Your task to perform on an android device: What's the weather? Image 0: 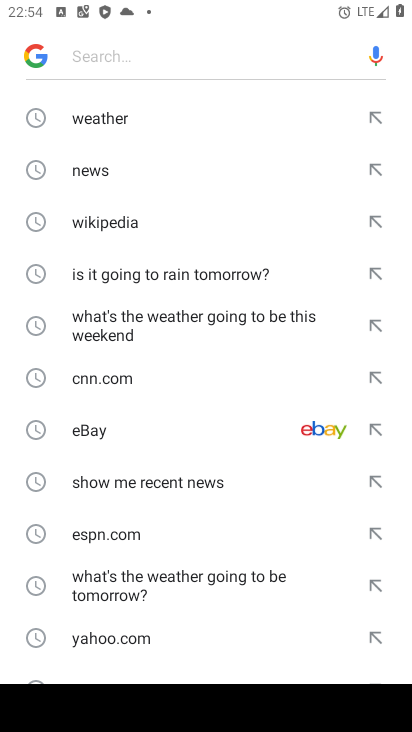
Step 0: drag from (373, 653) to (296, 729)
Your task to perform on an android device: What's the weather? Image 1: 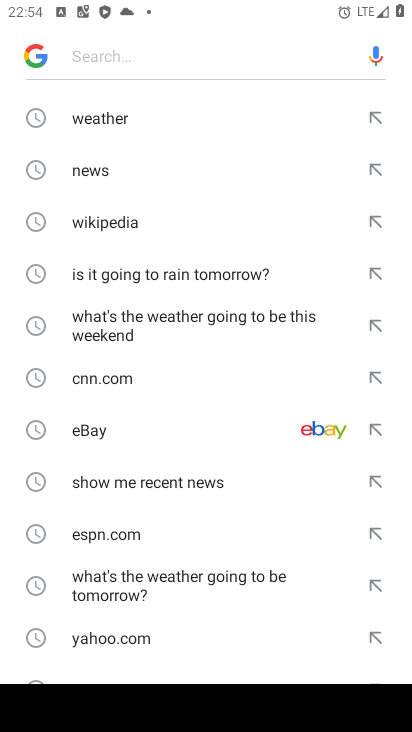
Step 1: click (110, 117)
Your task to perform on an android device: What's the weather? Image 2: 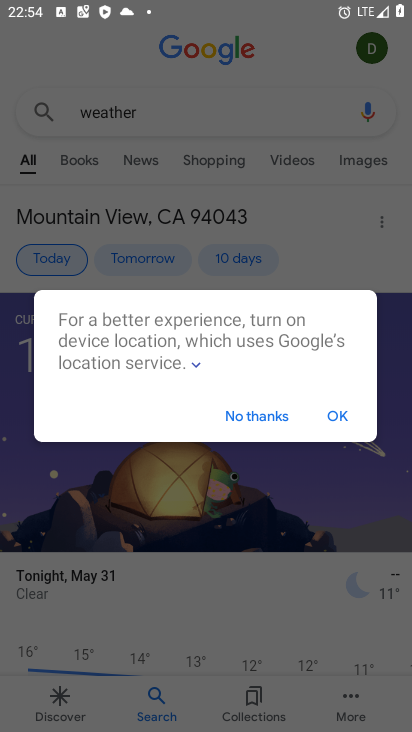
Step 2: click (335, 415)
Your task to perform on an android device: What's the weather? Image 3: 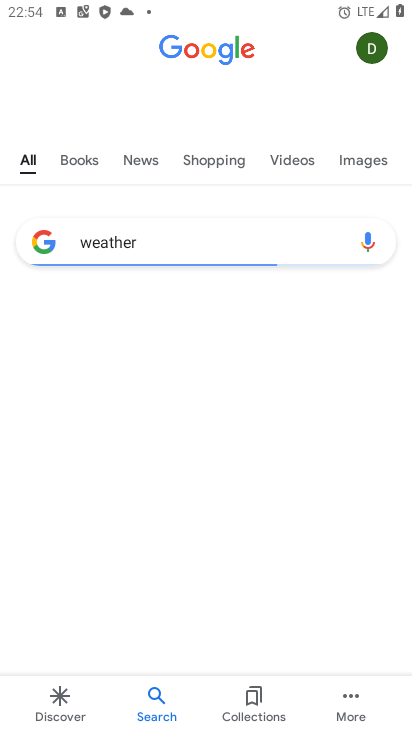
Step 3: task complete